Your task to perform on an android device: Is it going to rain tomorrow? Image 0: 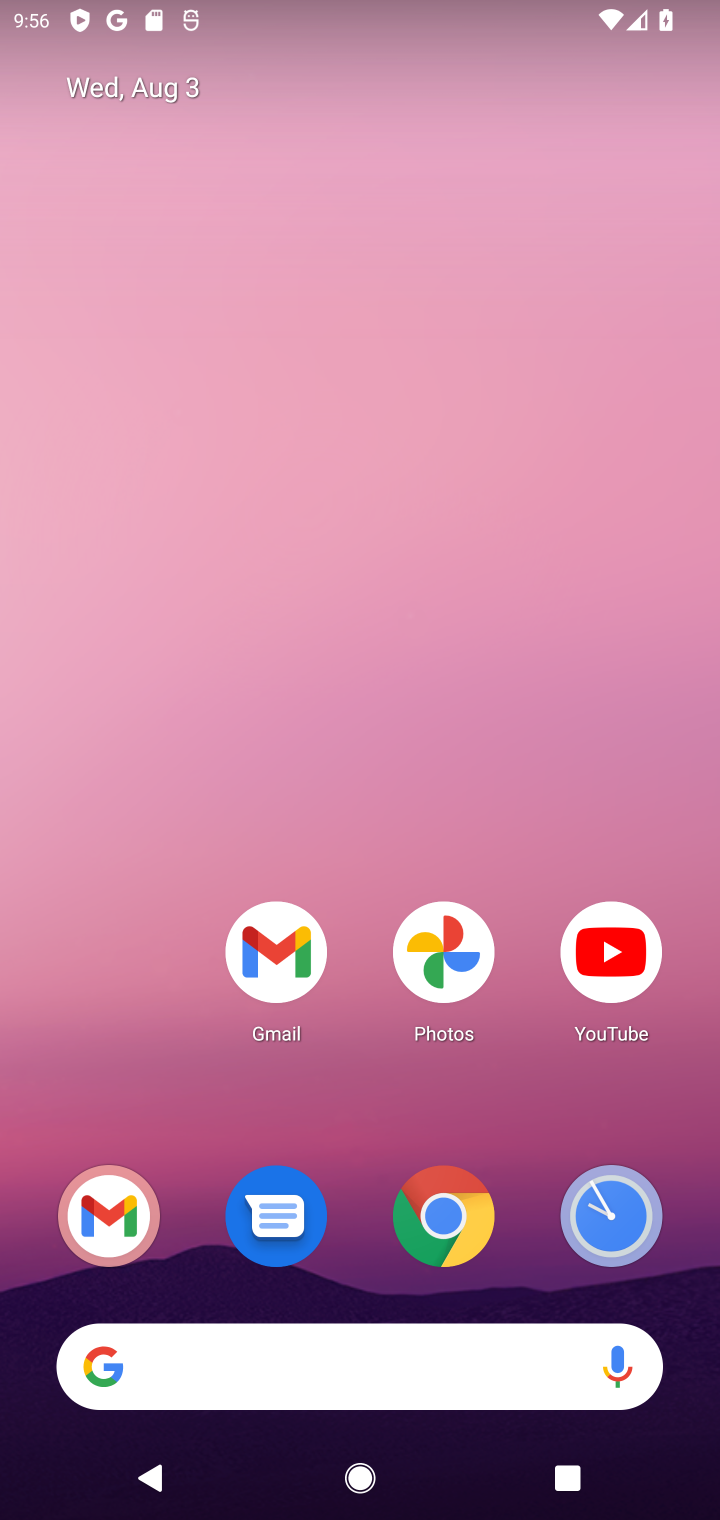
Step 0: drag from (264, 530) to (345, 84)
Your task to perform on an android device: Is it going to rain tomorrow? Image 1: 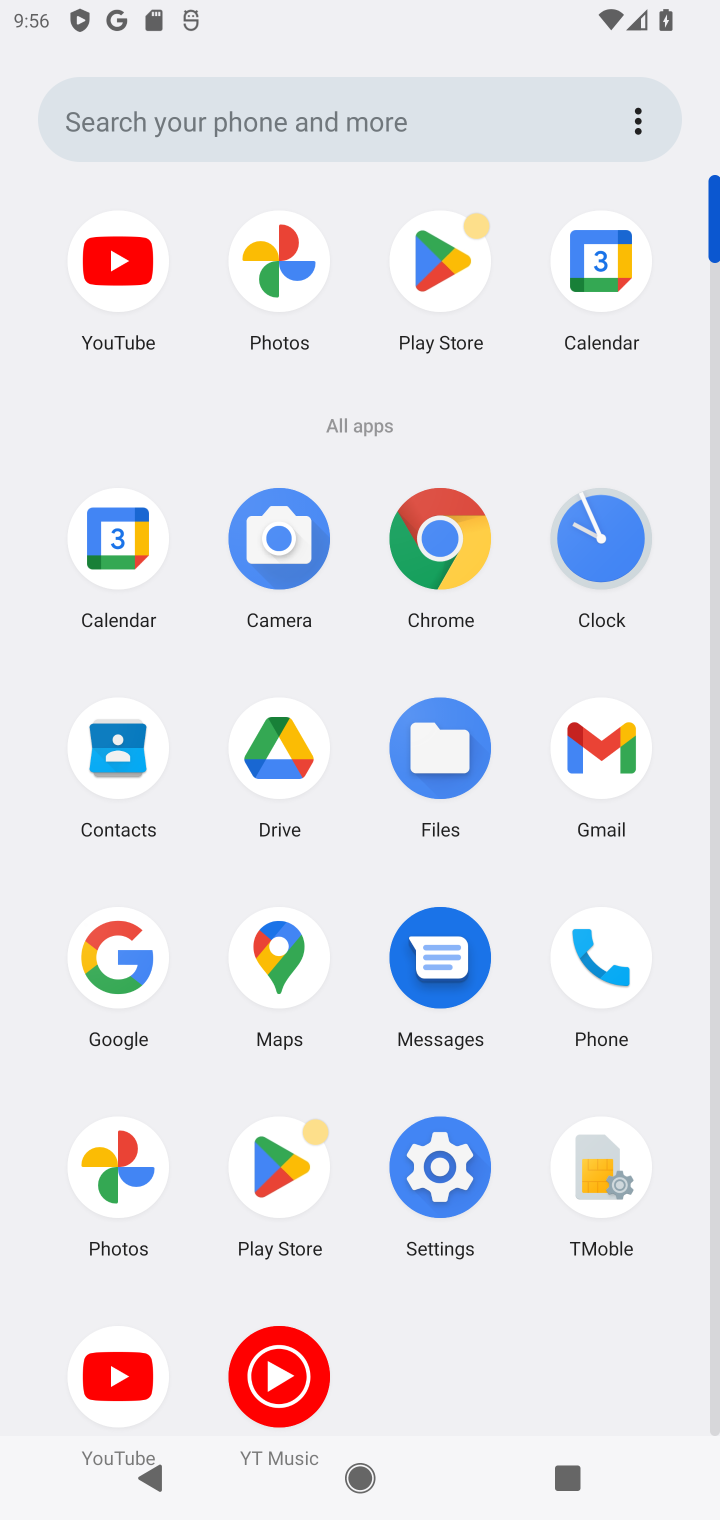
Step 1: click (135, 952)
Your task to perform on an android device: Is it going to rain tomorrow? Image 2: 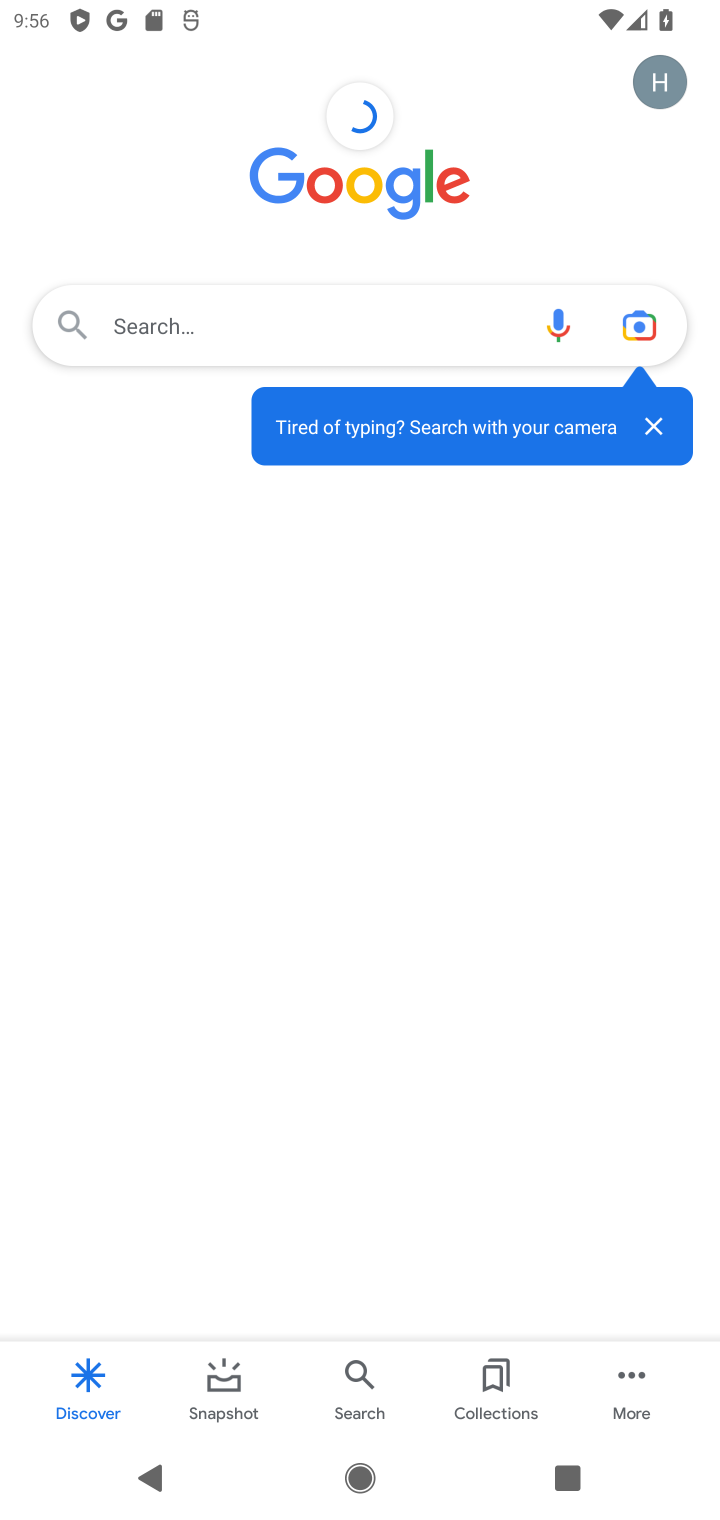
Step 2: click (250, 304)
Your task to perform on an android device: Is it going to rain tomorrow? Image 3: 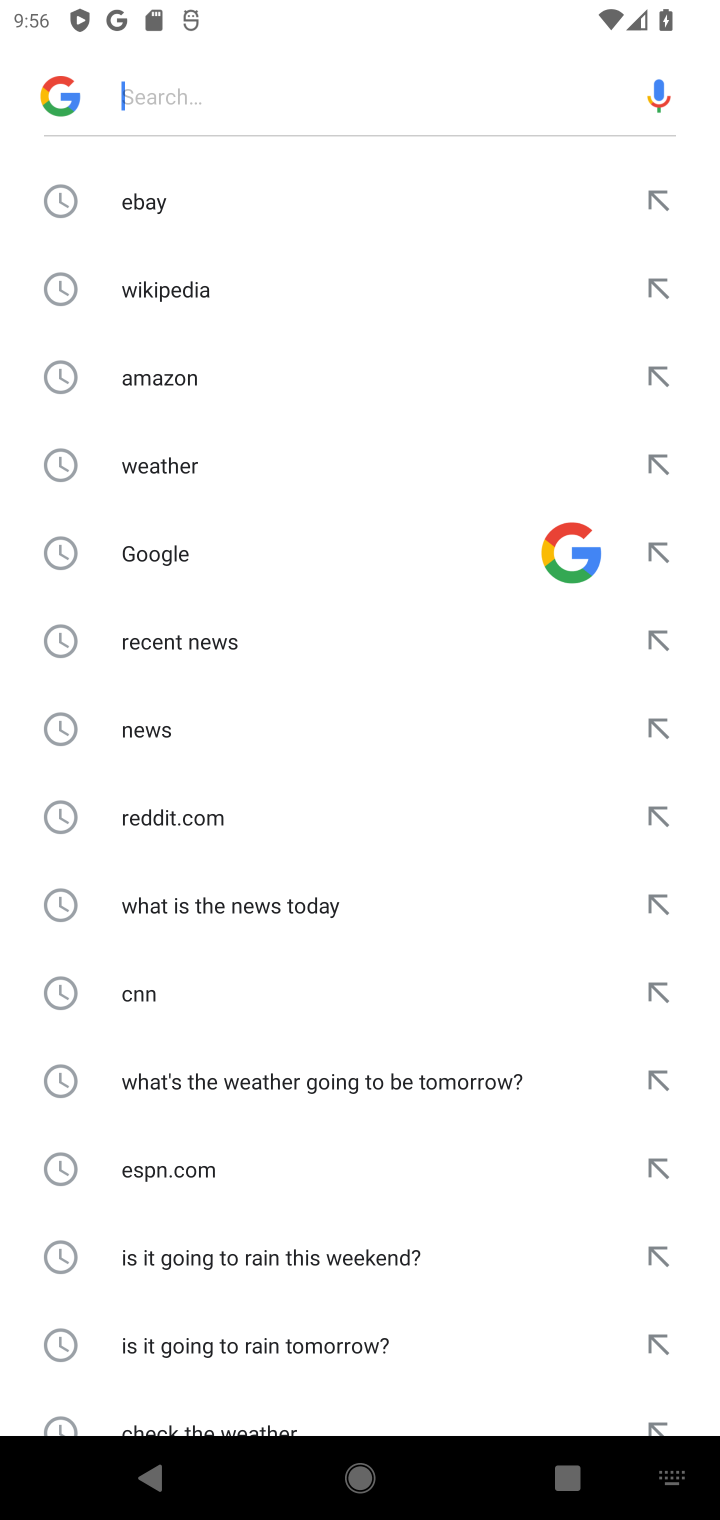
Step 3: click (201, 101)
Your task to perform on an android device: Is it going to rain tomorrow? Image 4: 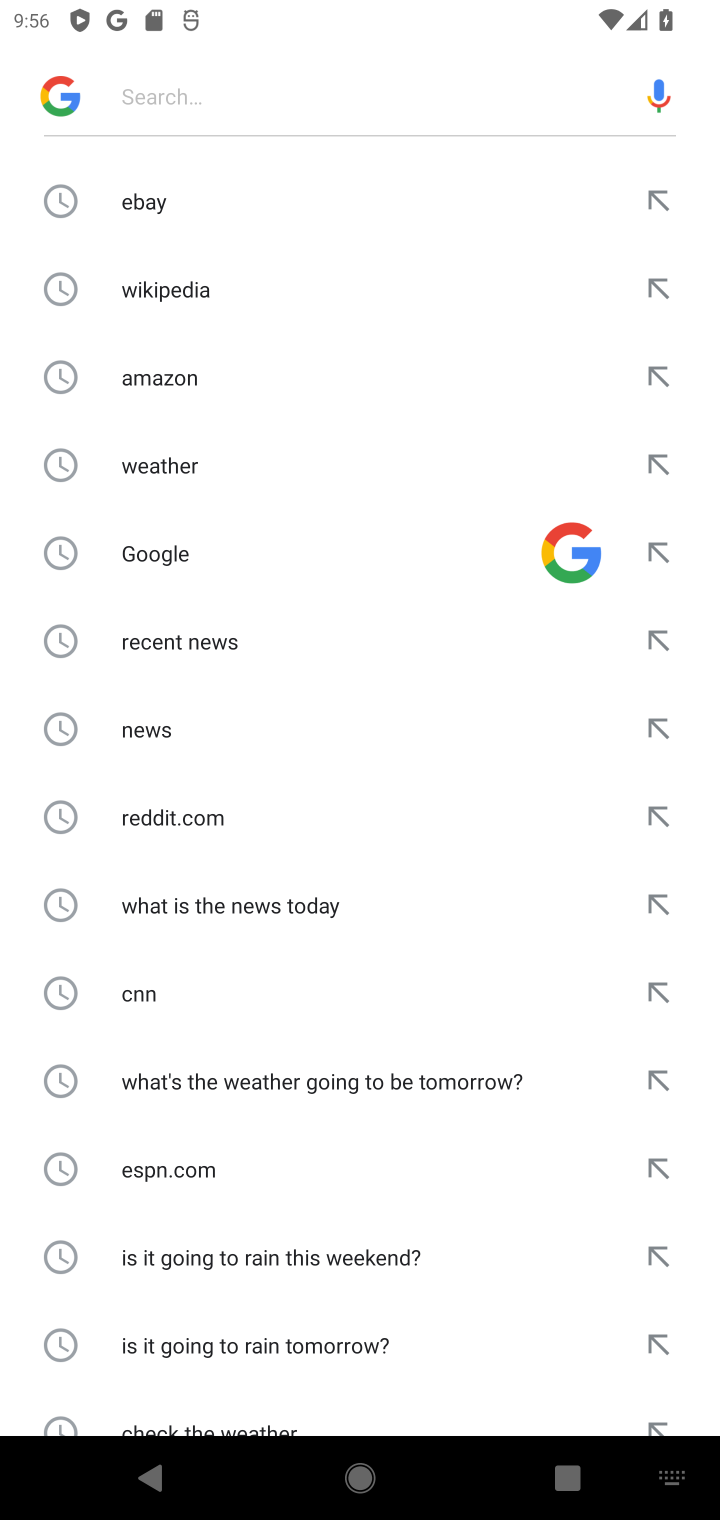
Step 4: press back button
Your task to perform on an android device: Is it going to rain tomorrow? Image 5: 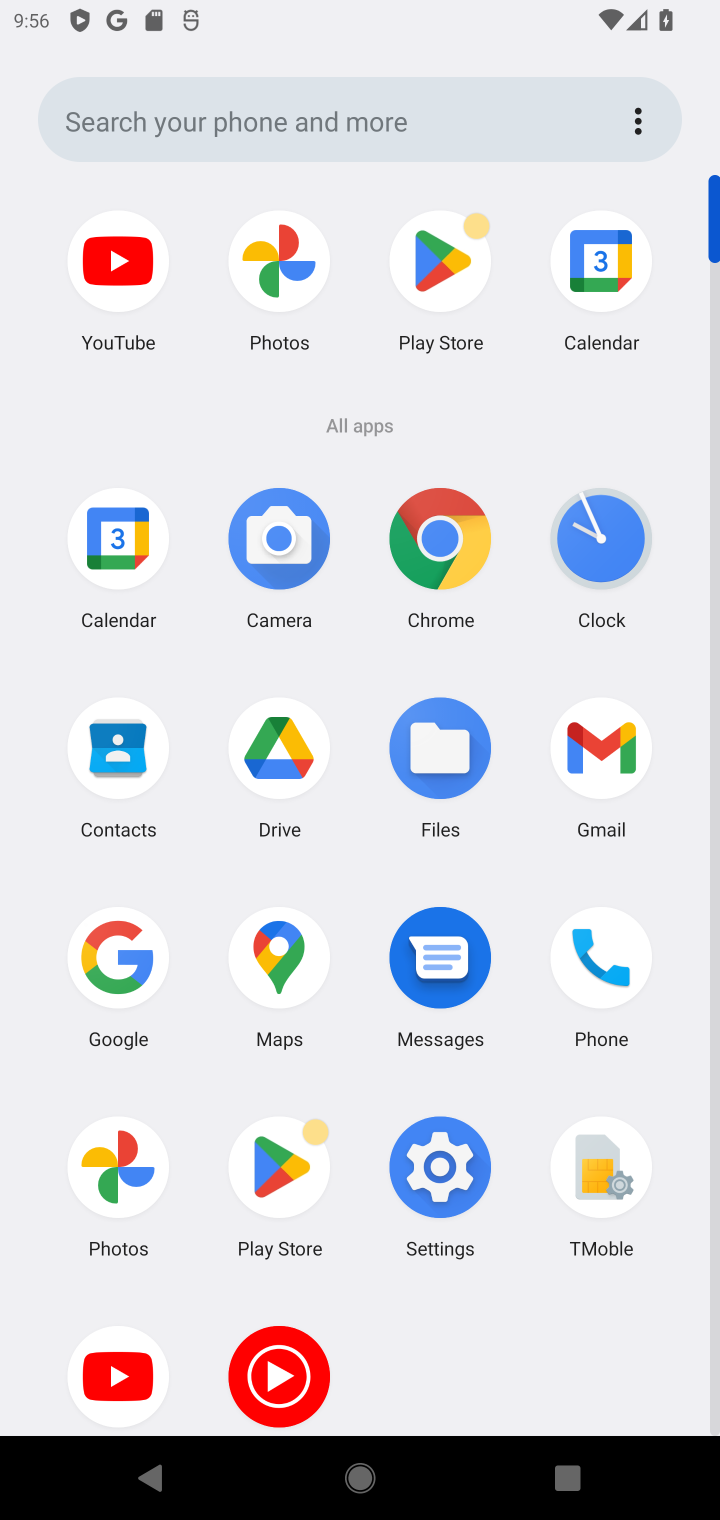
Step 5: press back button
Your task to perform on an android device: Is it going to rain tomorrow? Image 6: 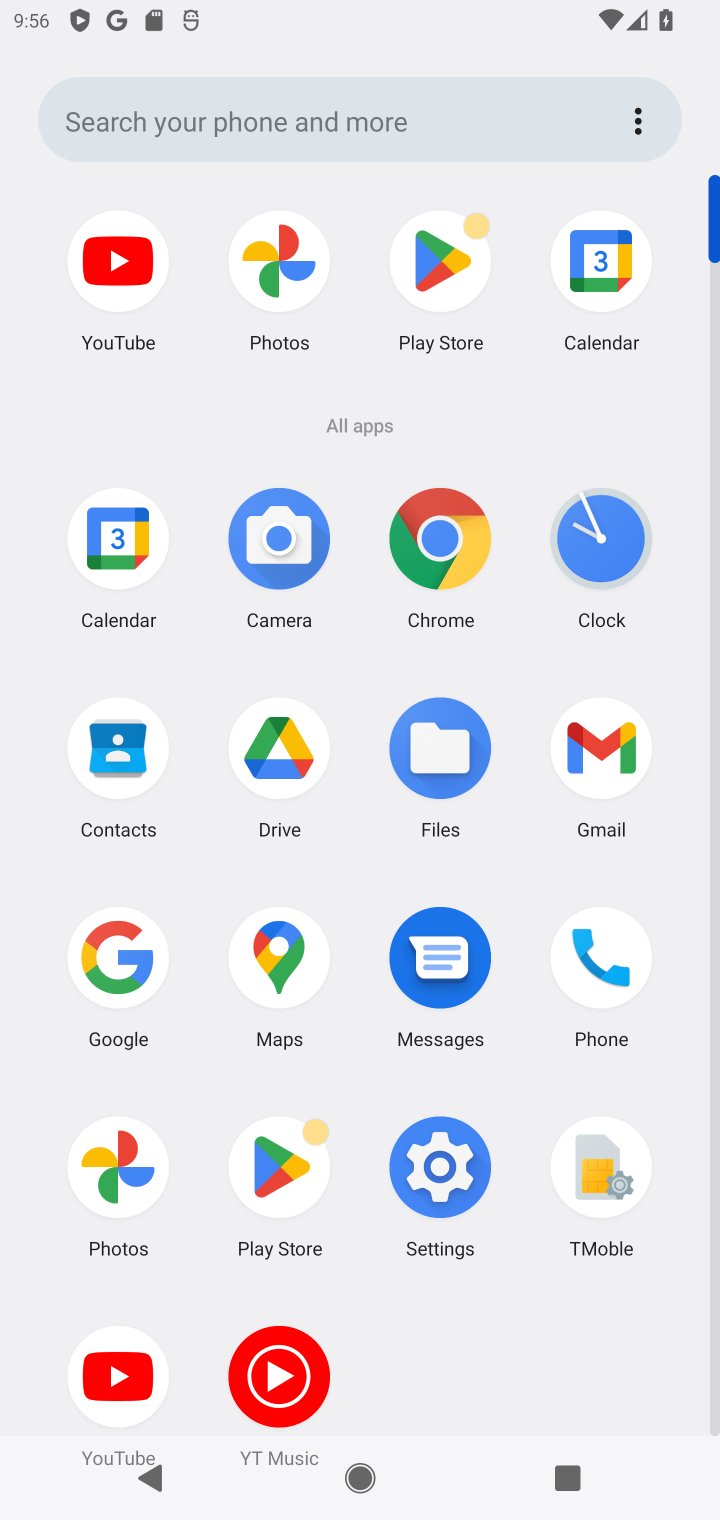
Step 6: press back button
Your task to perform on an android device: Is it going to rain tomorrow? Image 7: 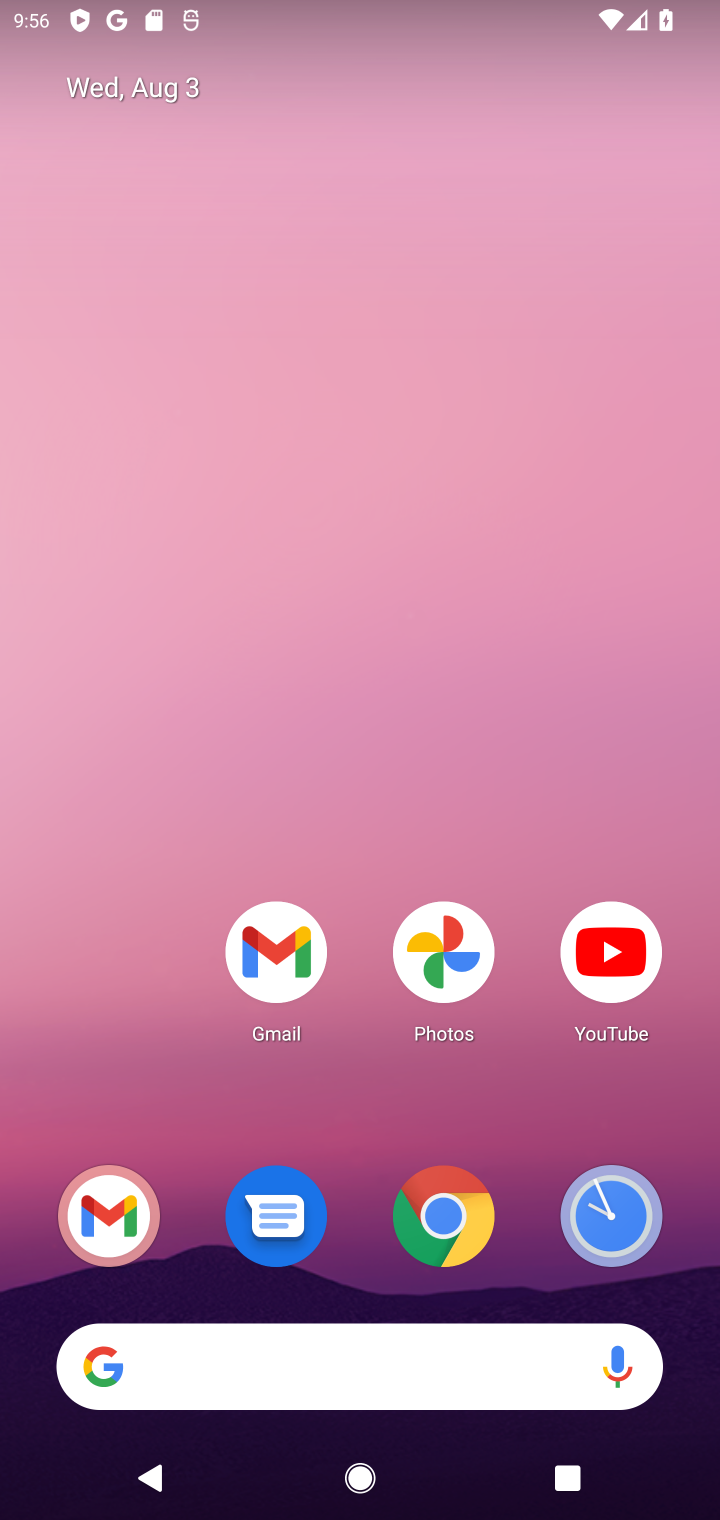
Step 7: press back button
Your task to perform on an android device: Is it going to rain tomorrow? Image 8: 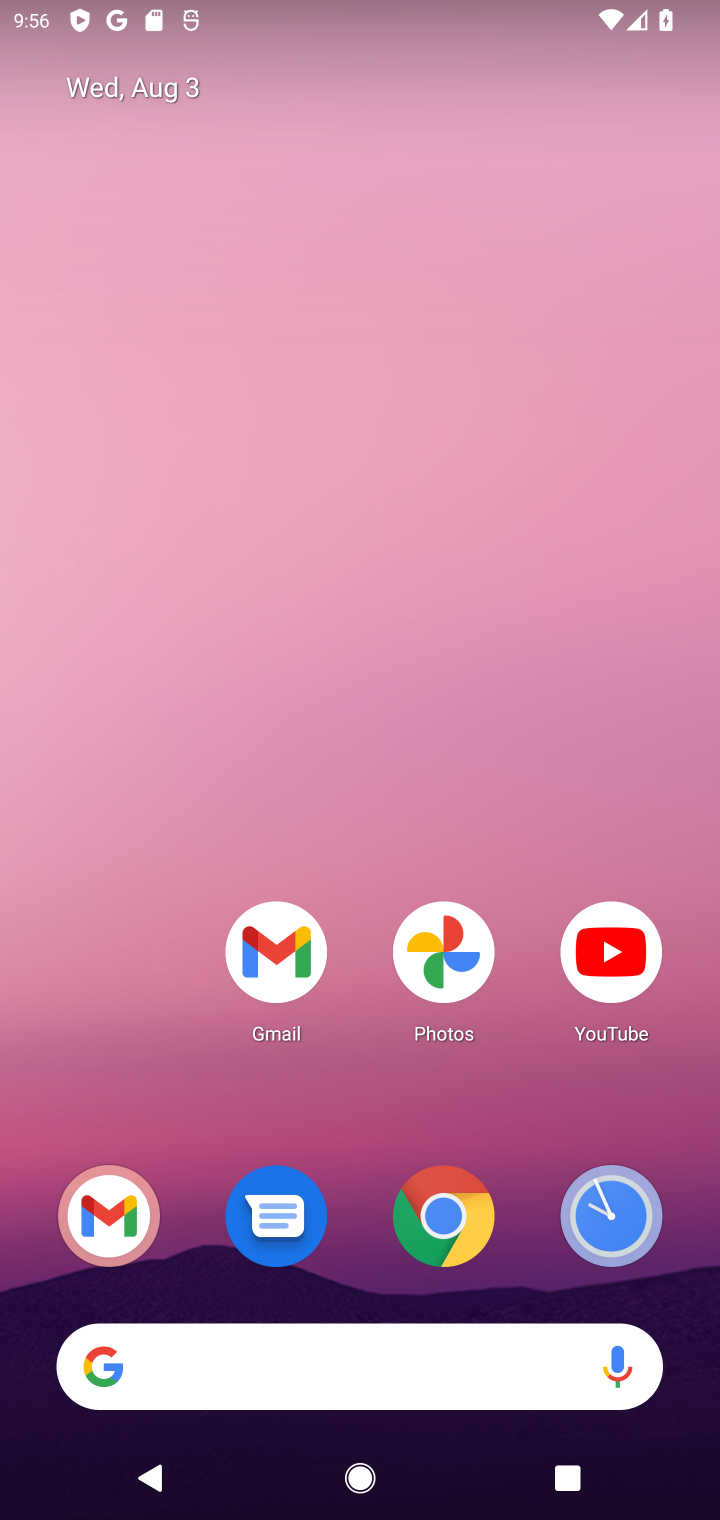
Step 8: drag from (677, 702) to (34, 804)
Your task to perform on an android device: Is it going to rain tomorrow? Image 9: 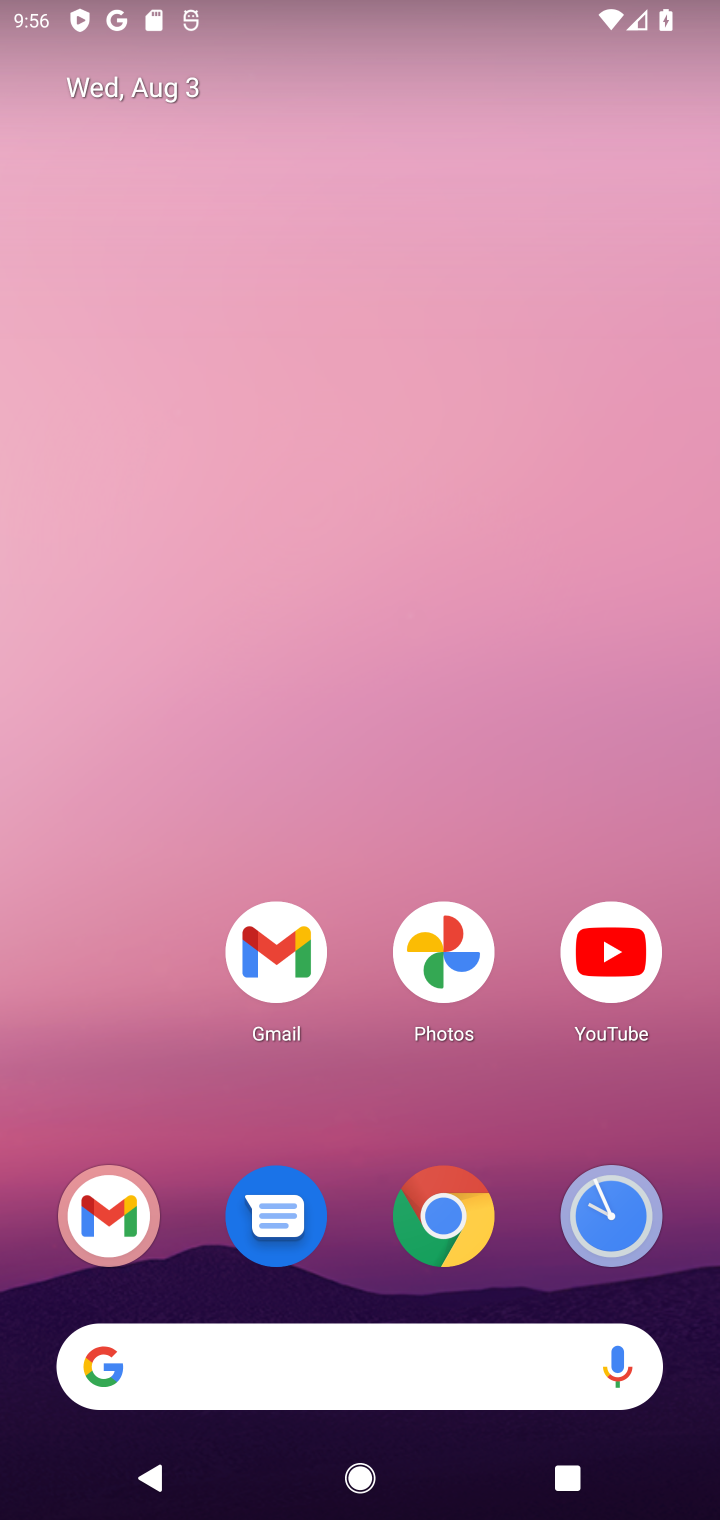
Step 9: click (351, 1381)
Your task to perform on an android device: Is it going to rain tomorrow? Image 10: 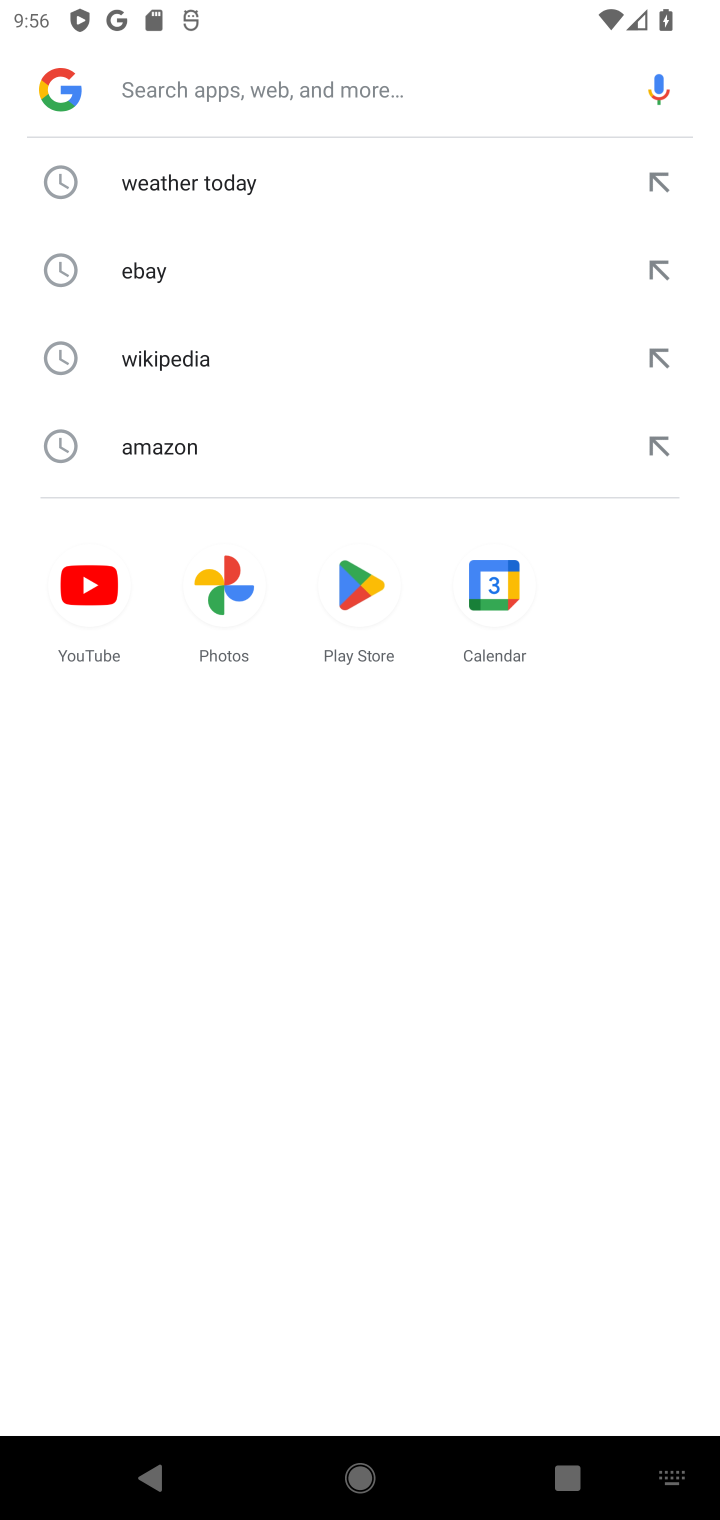
Step 10: click (237, 190)
Your task to perform on an android device: Is it going to rain tomorrow? Image 11: 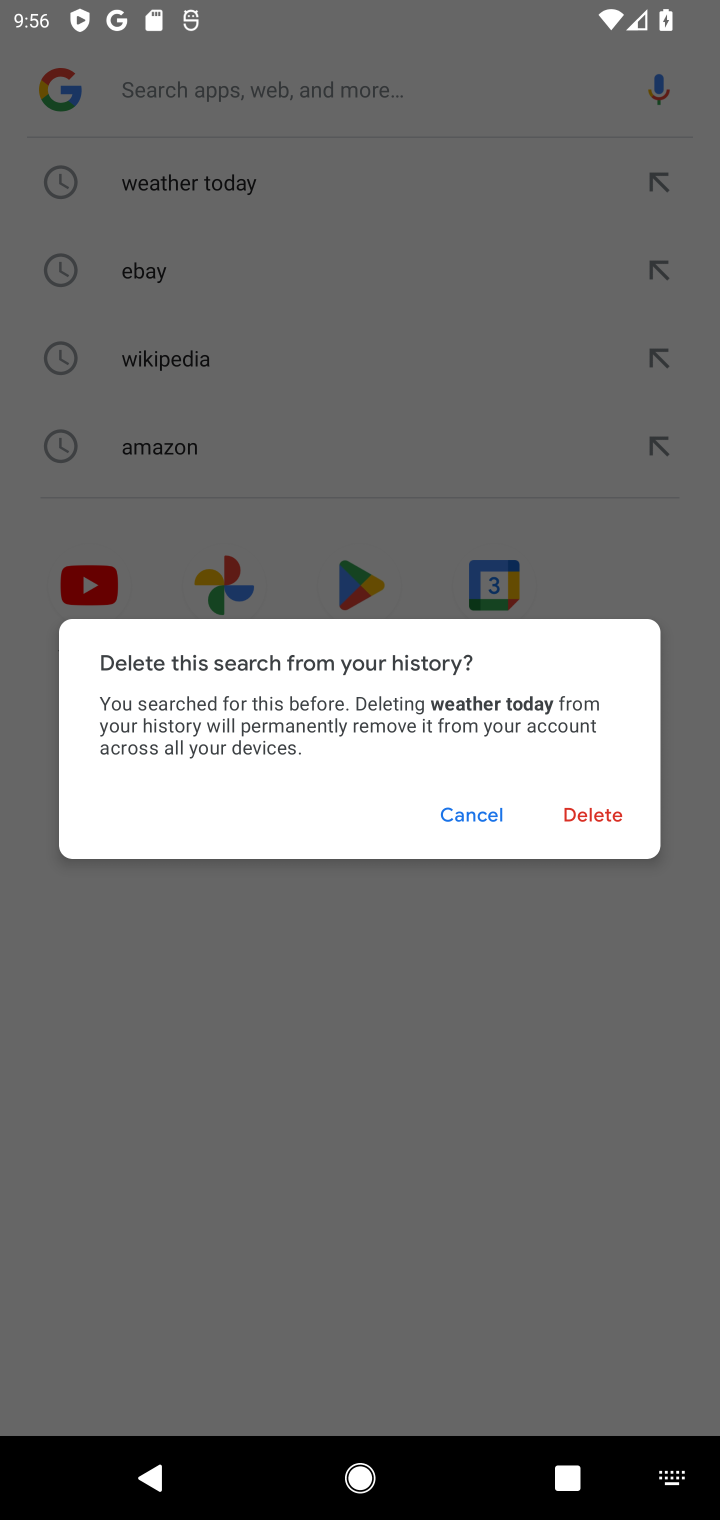
Step 11: click (479, 817)
Your task to perform on an android device: Is it going to rain tomorrow? Image 12: 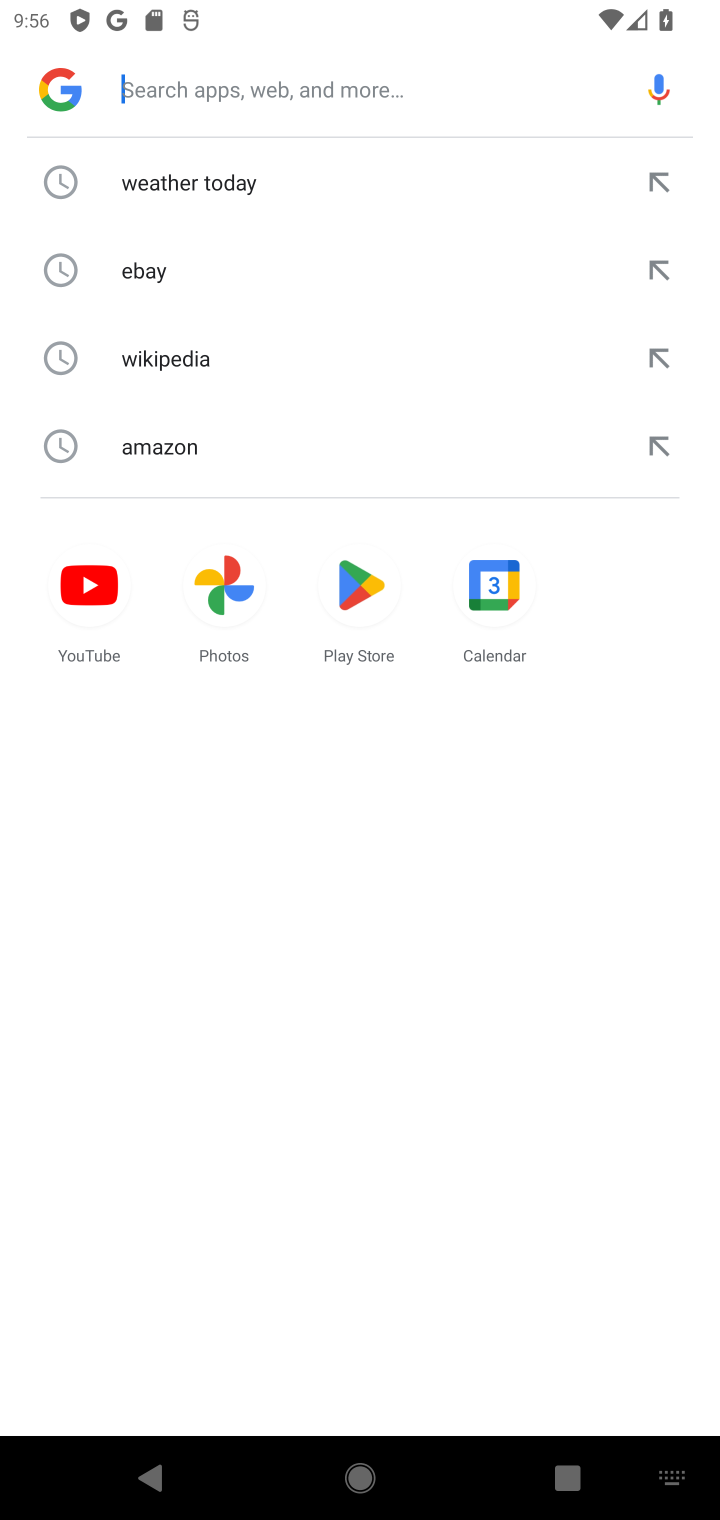
Step 12: click (243, 174)
Your task to perform on an android device: Is it going to rain tomorrow? Image 13: 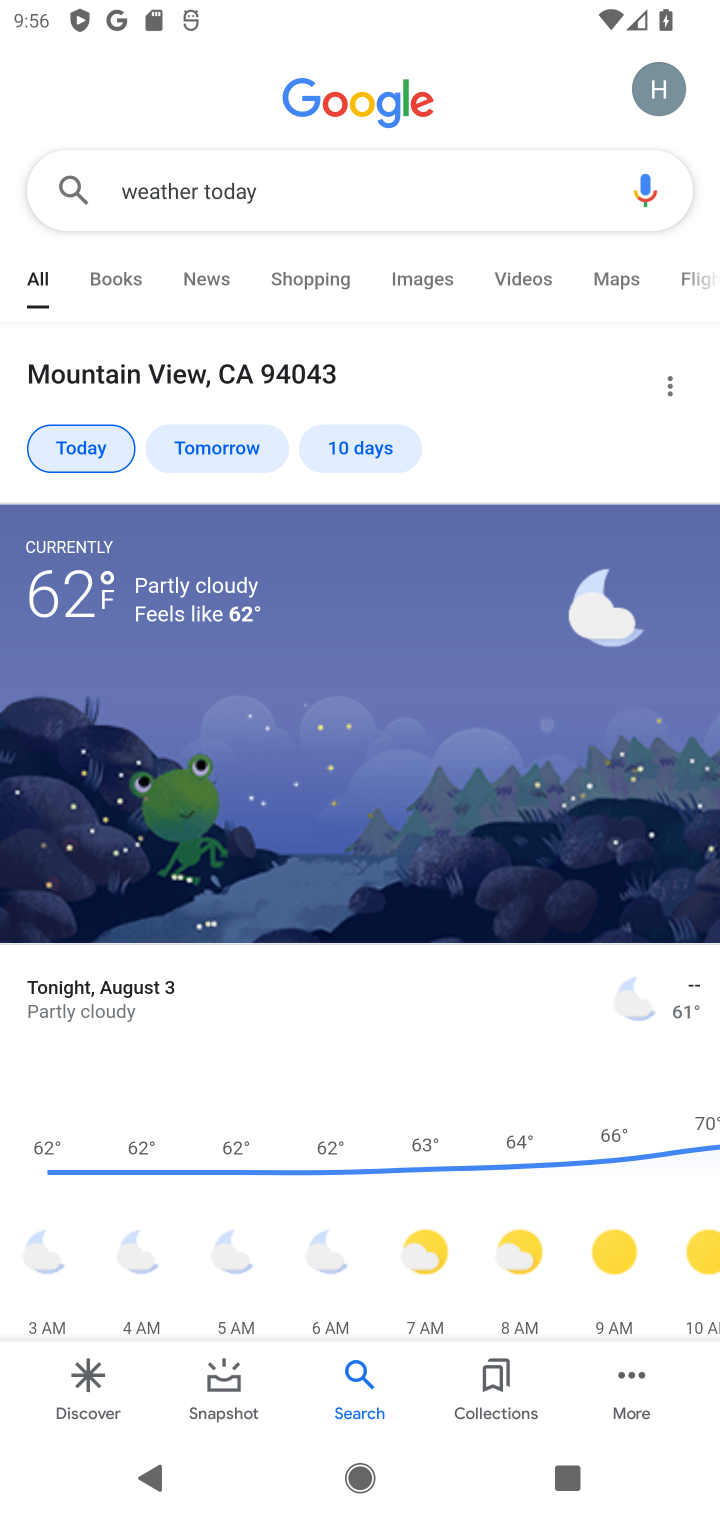
Step 13: click (217, 440)
Your task to perform on an android device: Is it going to rain tomorrow? Image 14: 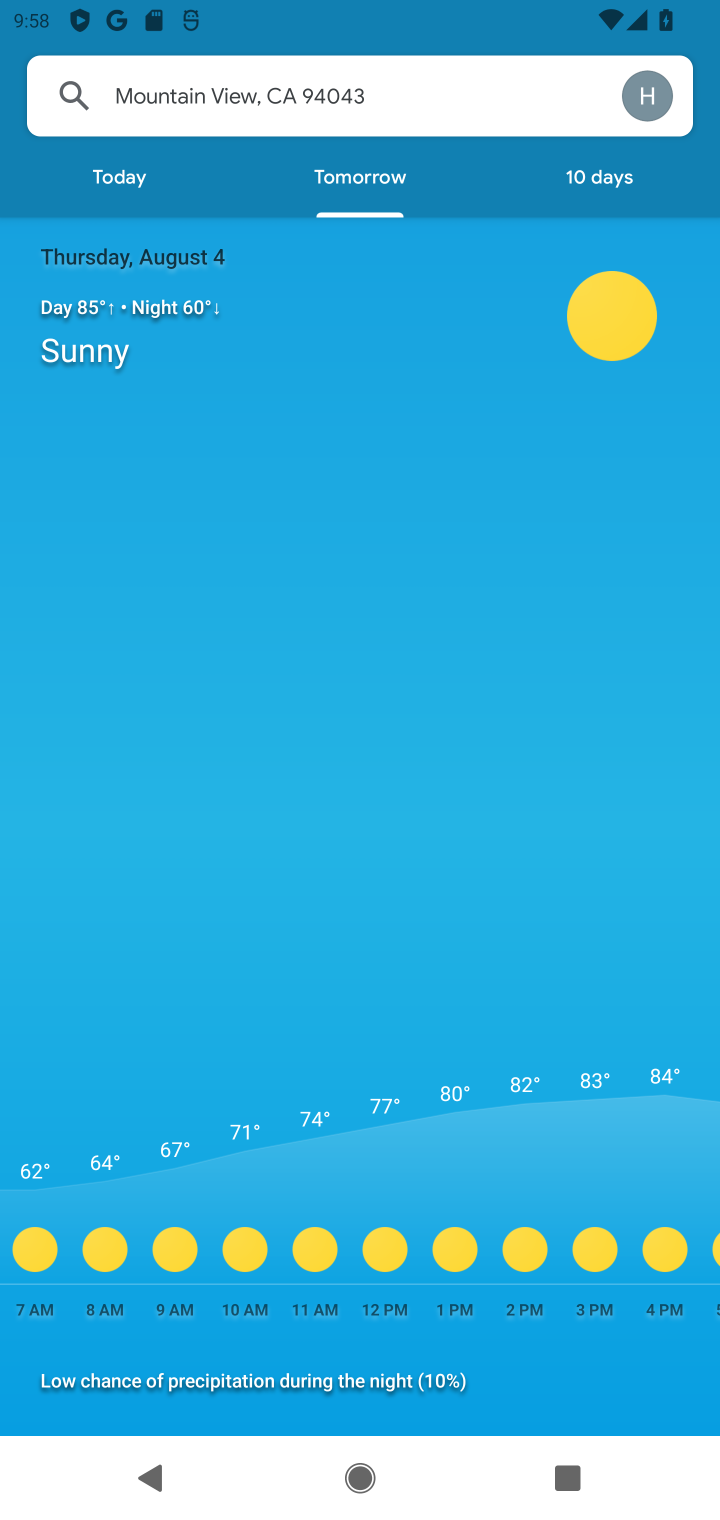
Step 14: task complete